Your task to perform on an android device: Is it going to rain today? Image 0: 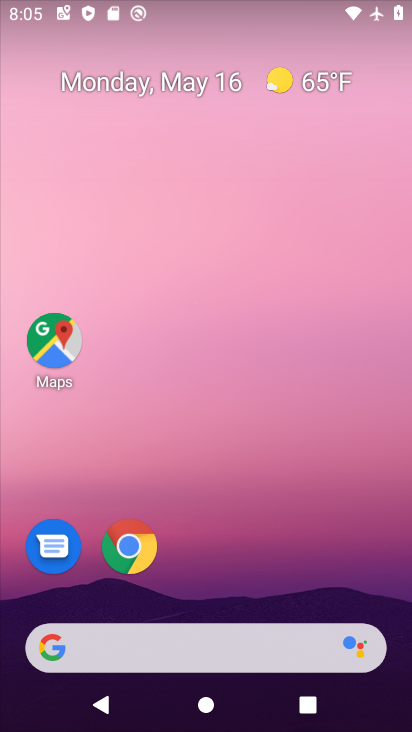
Step 0: click (254, 660)
Your task to perform on an android device: Is it going to rain today? Image 1: 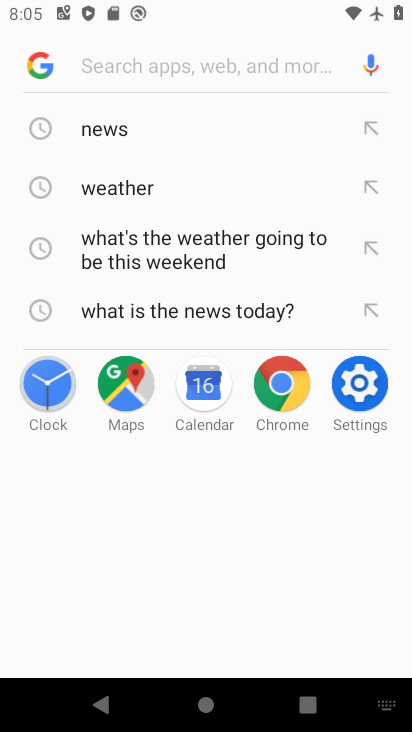
Step 1: click (164, 191)
Your task to perform on an android device: Is it going to rain today? Image 2: 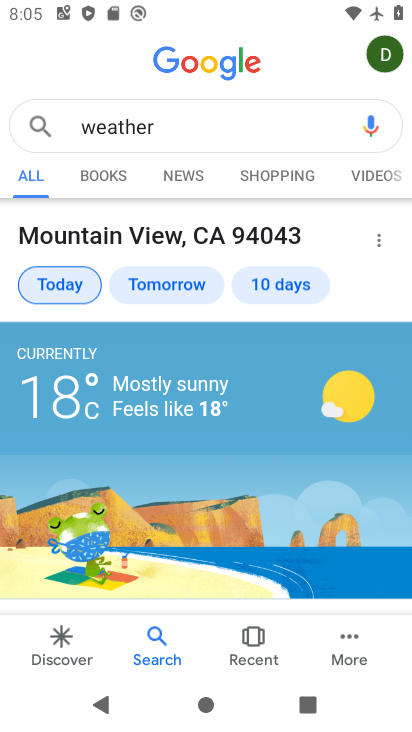
Step 2: task complete